Your task to perform on an android device: Open Chrome and go to settings Image 0: 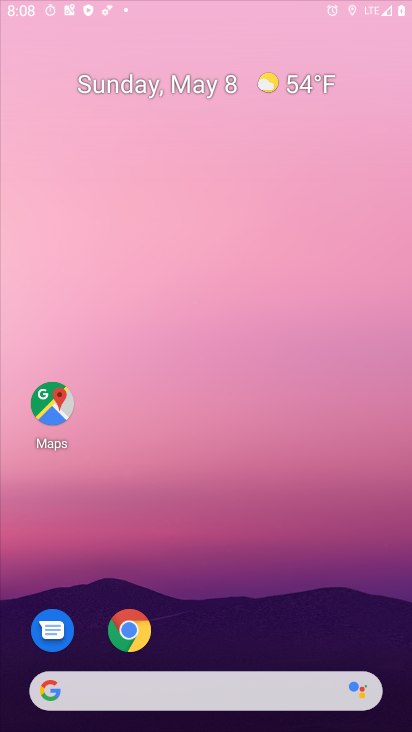
Step 0: drag from (188, 662) to (94, 14)
Your task to perform on an android device: Open Chrome and go to settings Image 1: 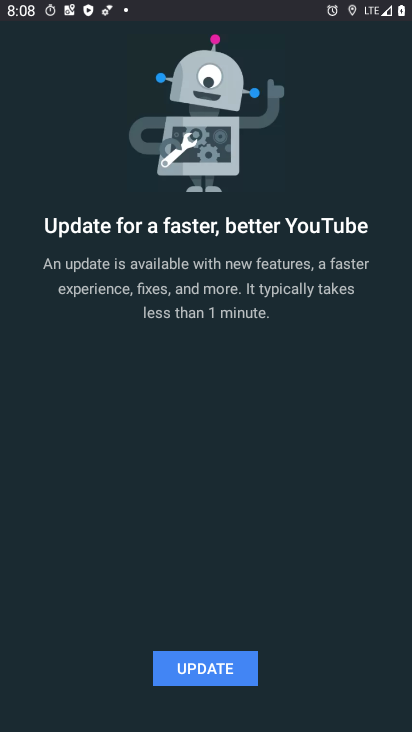
Step 1: press home button
Your task to perform on an android device: Open Chrome and go to settings Image 2: 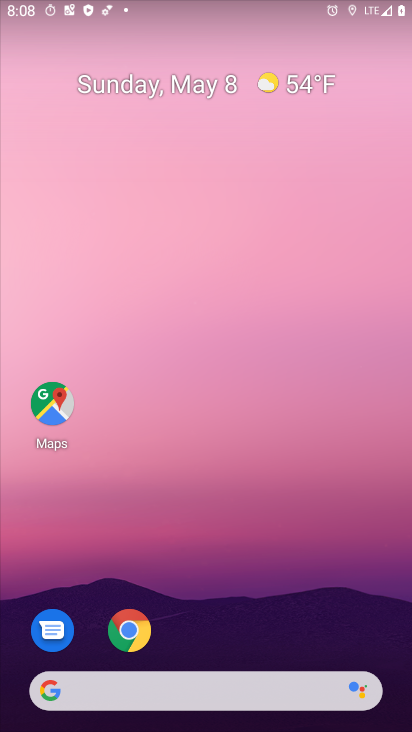
Step 2: drag from (220, 660) to (133, 116)
Your task to perform on an android device: Open Chrome and go to settings Image 3: 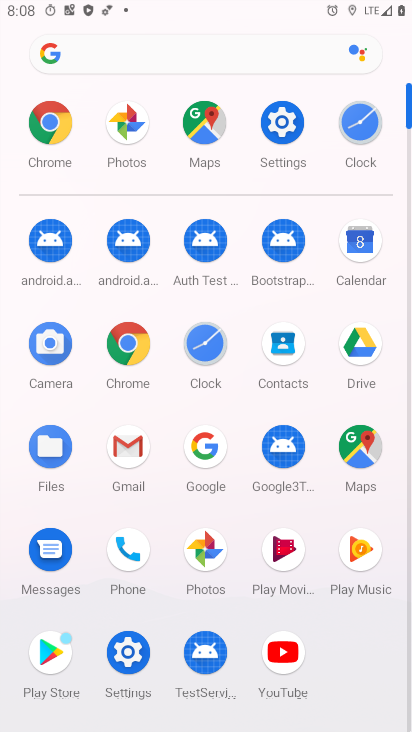
Step 3: click (125, 338)
Your task to perform on an android device: Open Chrome and go to settings Image 4: 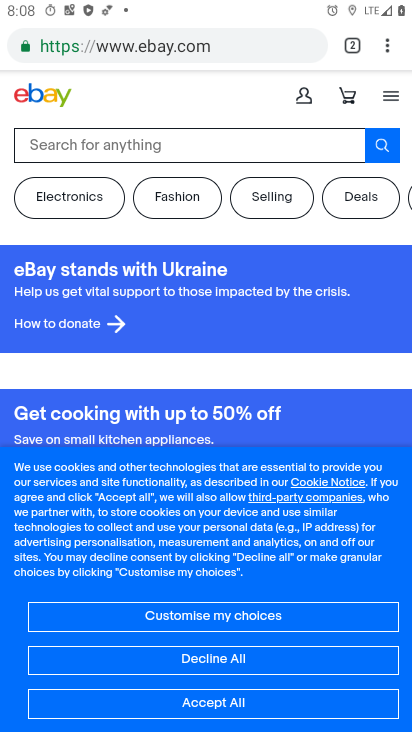
Step 4: click (388, 44)
Your task to perform on an android device: Open Chrome and go to settings Image 5: 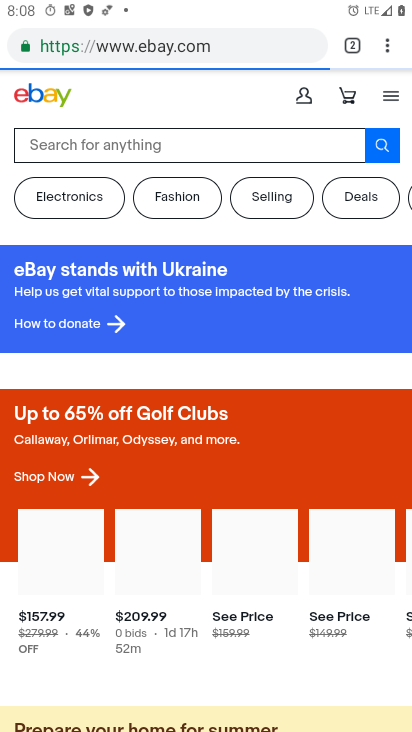
Step 5: click (385, 48)
Your task to perform on an android device: Open Chrome and go to settings Image 6: 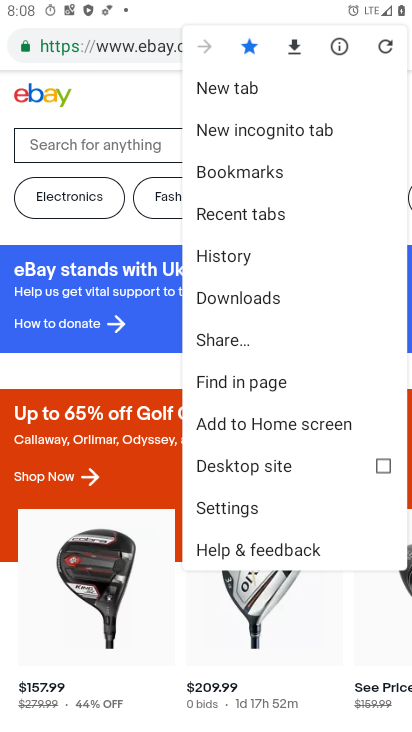
Step 6: click (218, 521)
Your task to perform on an android device: Open Chrome and go to settings Image 7: 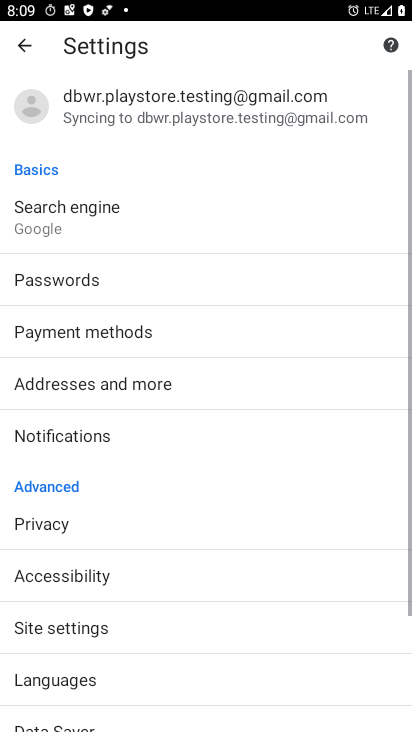
Step 7: task complete